Your task to perform on an android device: turn on location history Image 0: 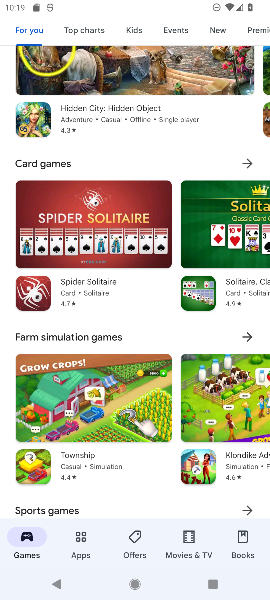
Step 0: drag from (145, 509) to (180, 162)
Your task to perform on an android device: turn on location history Image 1: 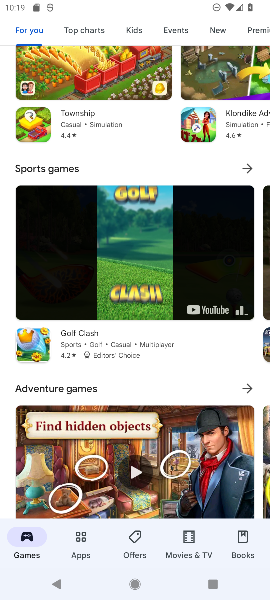
Step 1: press home button
Your task to perform on an android device: turn on location history Image 2: 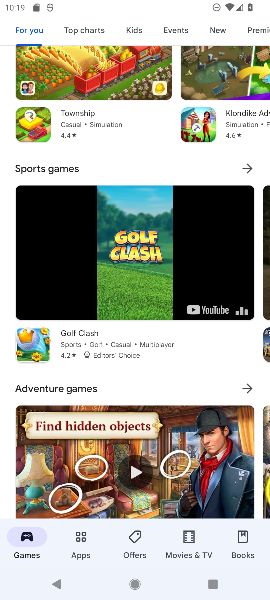
Step 2: press home button
Your task to perform on an android device: turn on location history Image 3: 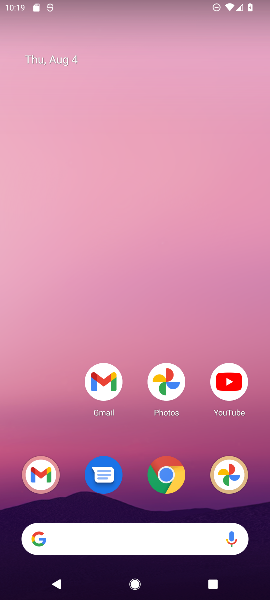
Step 3: drag from (152, 493) to (179, 159)
Your task to perform on an android device: turn on location history Image 4: 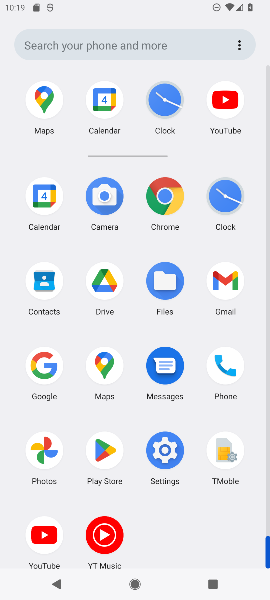
Step 4: click (156, 454)
Your task to perform on an android device: turn on location history Image 5: 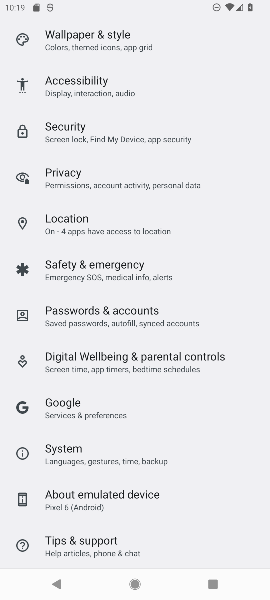
Step 5: click (102, 213)
Your task to perform on an android device: turn on location history Image 6: 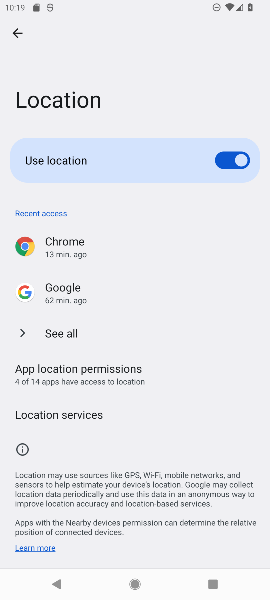
Step 6: drag from (135, 442) to (140, 218)
Your task to perform on an android device: turn on location history Image 7: 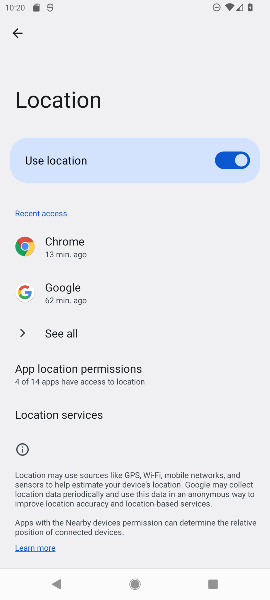
Step 7: click (80, 412)
Your task to perform on an android device: turn on location history Image 8: 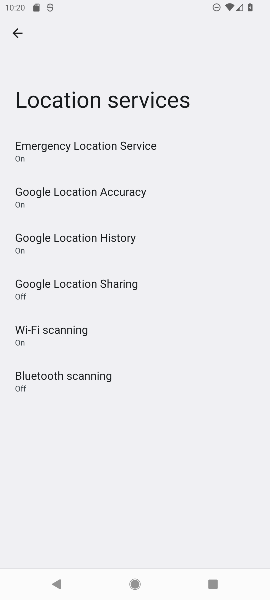
Step 8: click (118, 245)
Your task to perform on an android device: turn on location history Image 9: 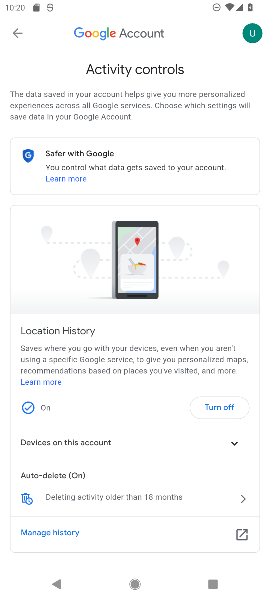
Step 9: task complete